Your task to perform on an android device: check data usage Image 0: 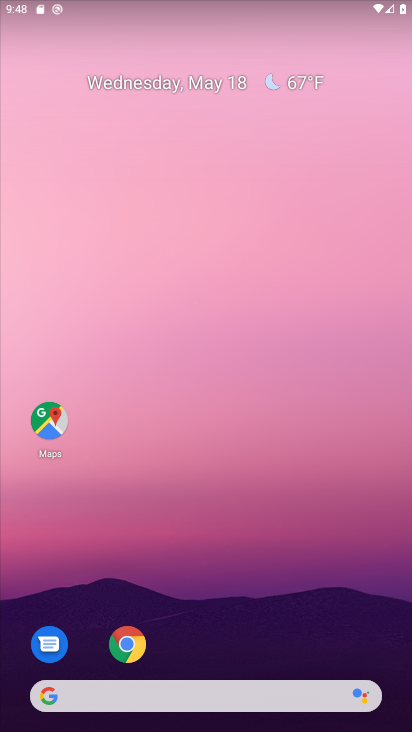
Step 0: drag from (274, 619) to (249, 62)
Your task to perform on an android device: check data usage Image 1: 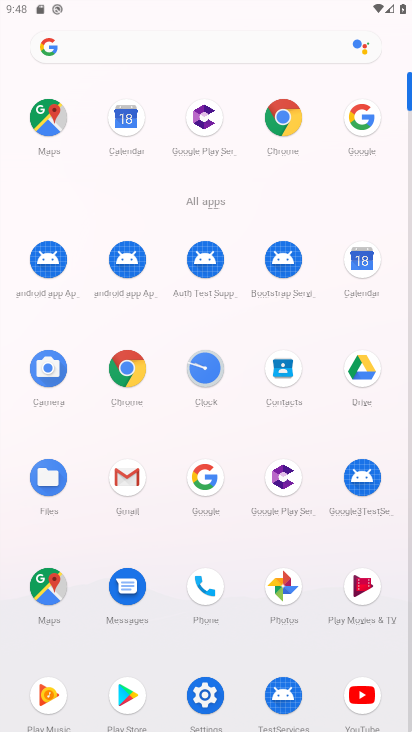
Step 1: click (206, 695)
Your task to perform on an android device: check data usage Image 2: 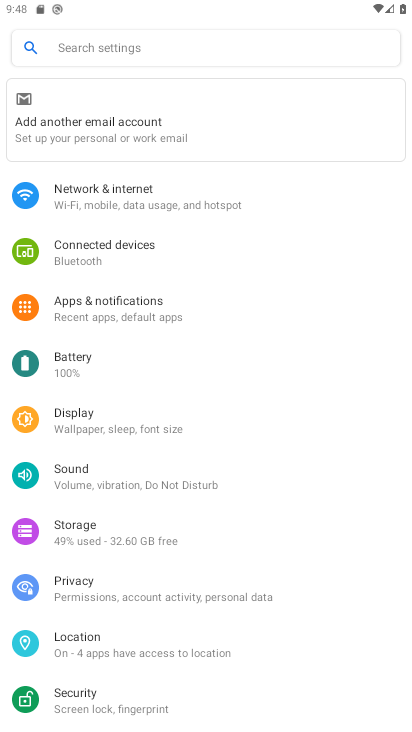
Step 2: click (115, 205)
Your task to perform on an android device: check data usage Image 3: 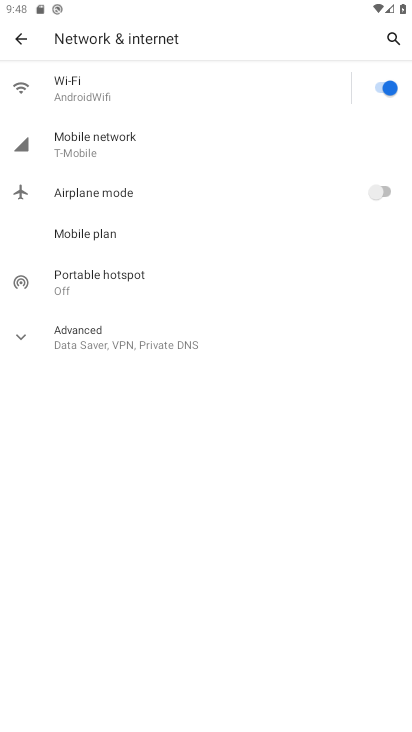
Step 3: click (105, 134)
Your task to perform on an android device: check data usage Image 4: 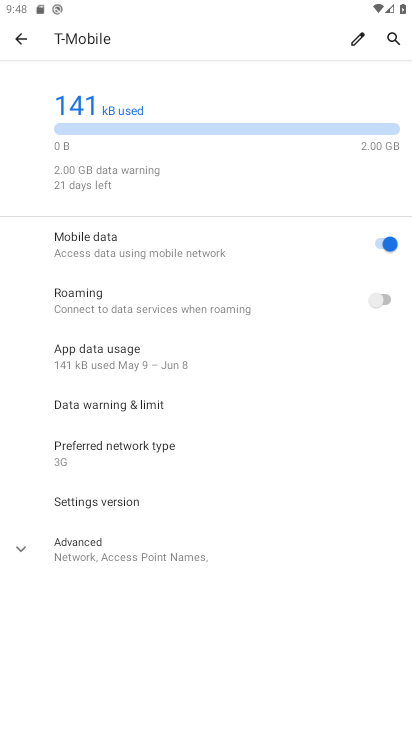
Step 4: task complete